Your task to perform on an android device: Go to notification settings Image 0: 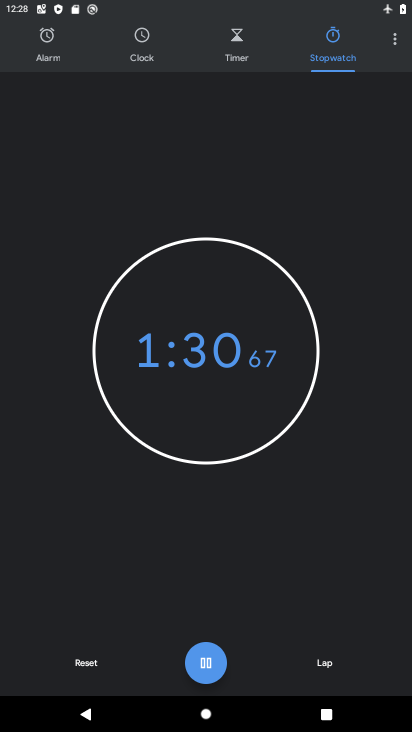
Step 0: press home button
Your task to perform on an android device: Go to notification settings Image 1: 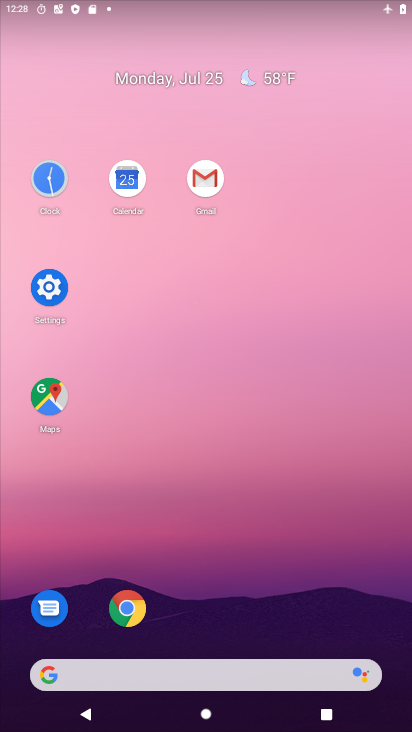
Step 1: click (54, 283)
Your task to perform on an android device: Go to notification settings Image 2: 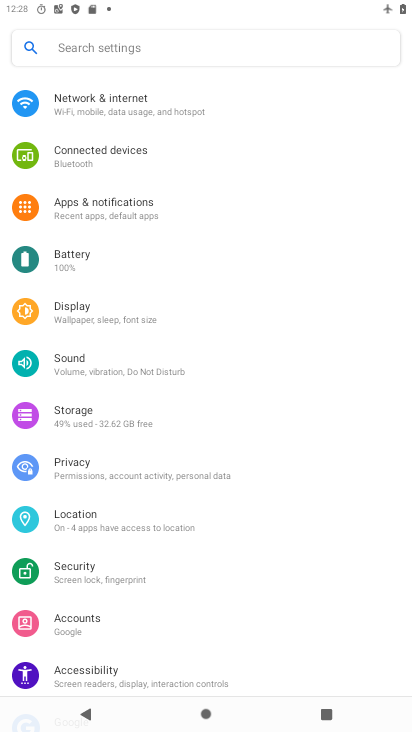
Step 2: click (127, 214)
Your task to perform on an android device: Go to notification settings Image 3: 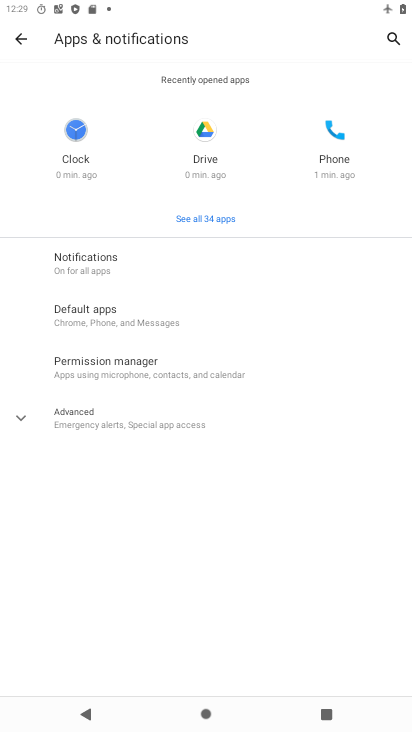
Step 3: task complete